Your task to perform on an android device: move an email to a new category in the gmail app Image 0: 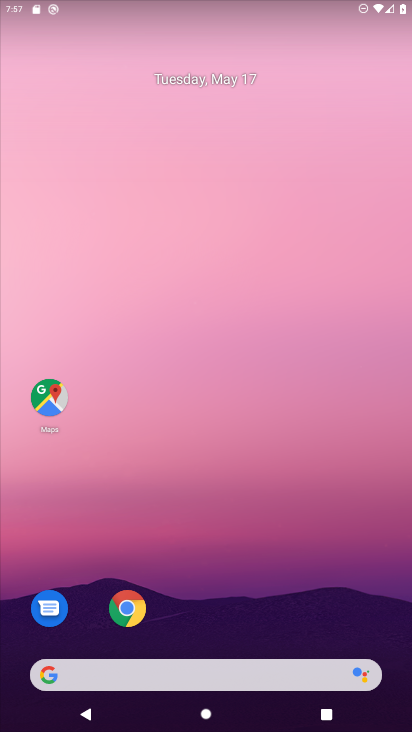
Step 0: drag from (204, 619) to (265, 190)
Your task to perform on an android device: move an email to a new category in the gmail app Image 1: 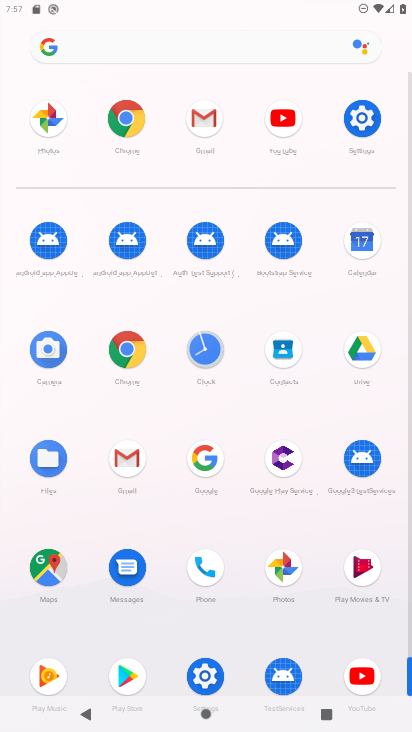
Step 1: click (136, 469)
Your task to perform on an android device: move an email to a new category in the gmail app Image 2: 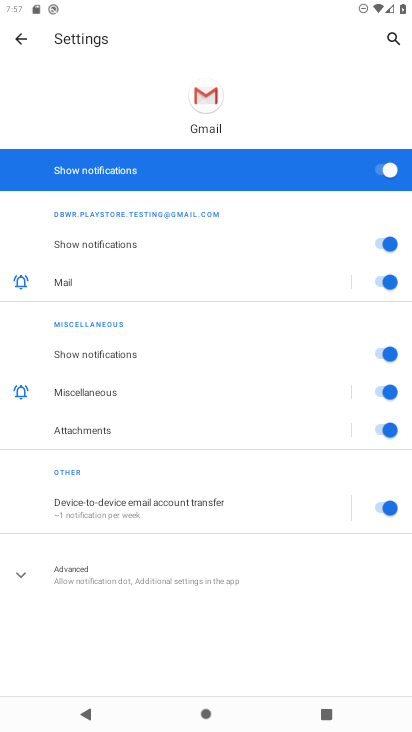
Step 2: click (21, 40)
Your task to perform on an android device: move an email to a new category in the gmail app Image 3: 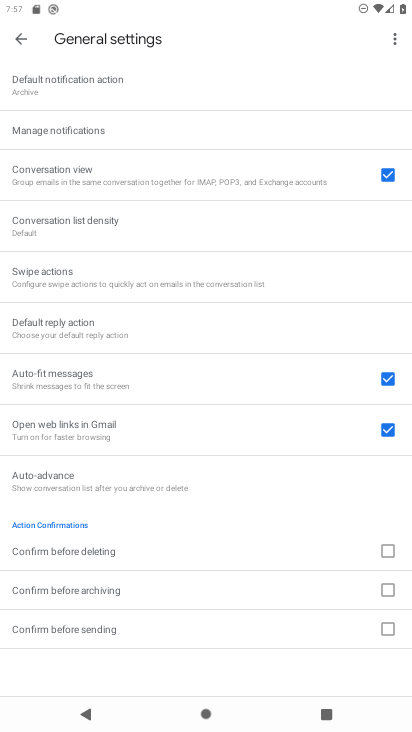
Step 3: click (20, 40)
Your task to perform on an android device: move an email to a new category in the gmail app Image 4: 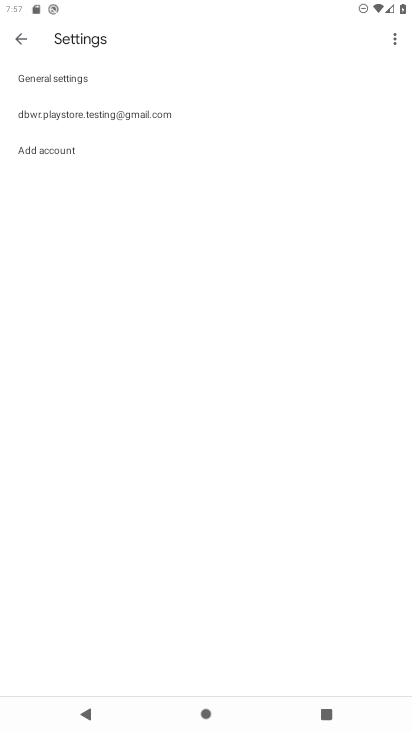
Step 4: click (24, 43)
Your task to perform on an android device: move an email to a new category in the gmail app Image 5: 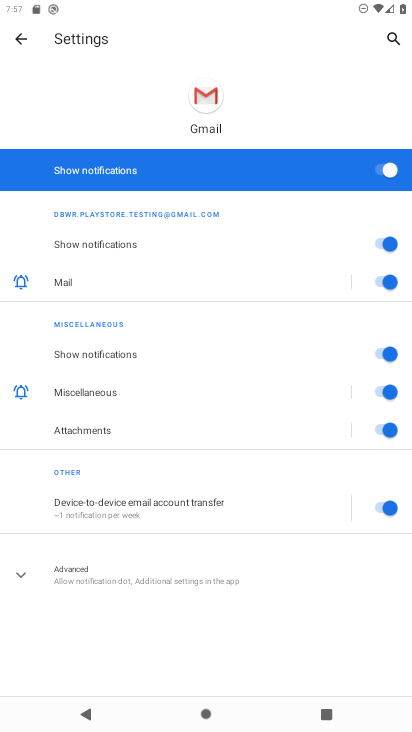
Step 5: click (21, 33)
Your task to perform on an android device: move an email to a new category in the gmail app Image 6: 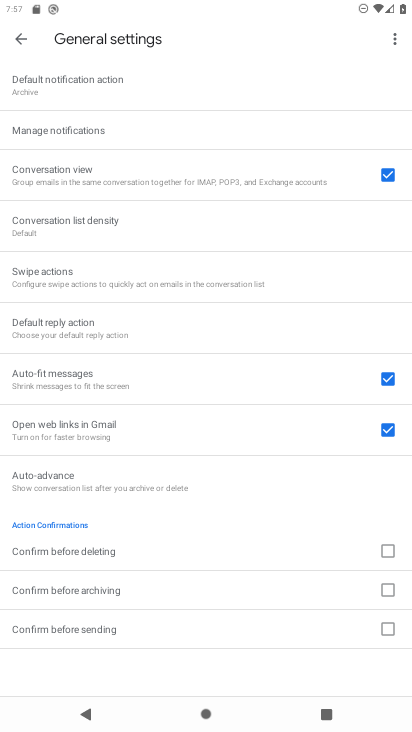
Step 6: click (19, 31)
Your task to perform on an android device: move an email to a new category in the gmail app Image 7: 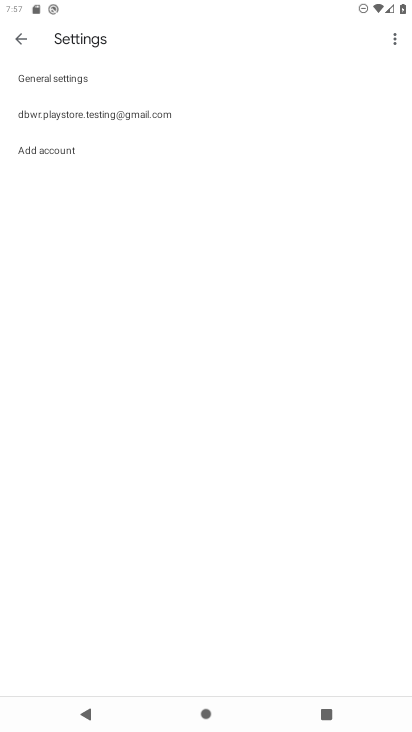
Step 7: click (19, 31)
Your task to perform on an android device: move an email to a new category in the gmail app Image 8: 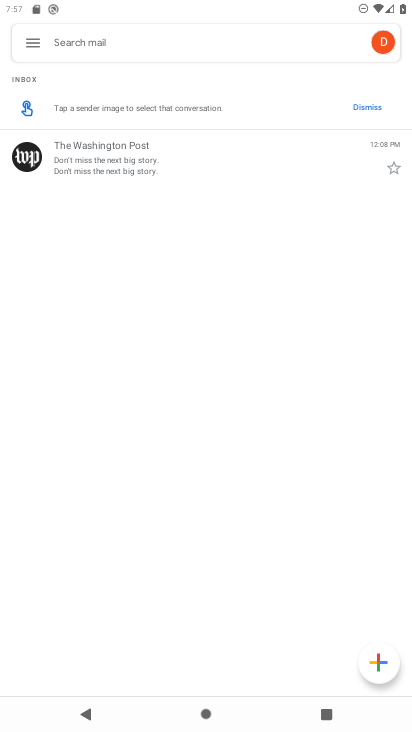
Step 8: click (37, 160)
Your task to perform on an android device: move an email to a new category in the gmail app Image 9: 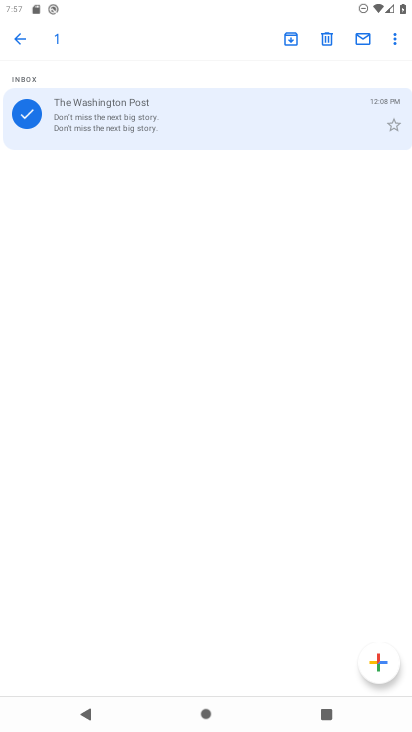
Step 9: click (389, 40)
Your task to perform on an android device: move an email to a new category in the gmail app Image 10: 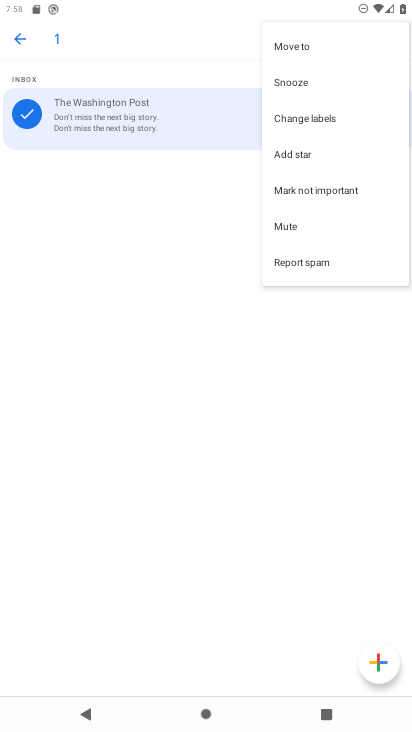
Step 10: click (308, 48)
Your task to perform on an android device: move an email to a new category in the gmail app Image 11: 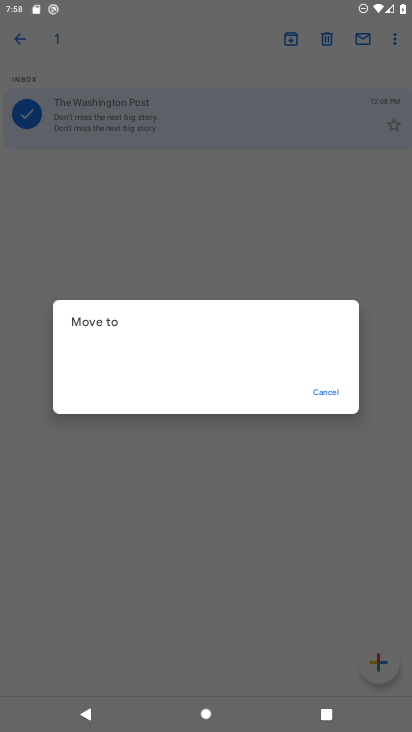
Step 11: click (250, 359)
Your task to perform on an android device: move an email to a new category in the gmail app Image 12: 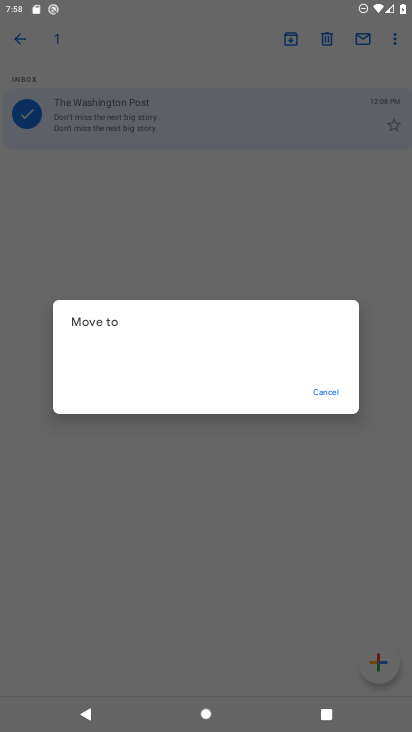
Step 12: click (338, 393)
Your task to perform on an android device: move an email to a new category in the gmail app Image 13: 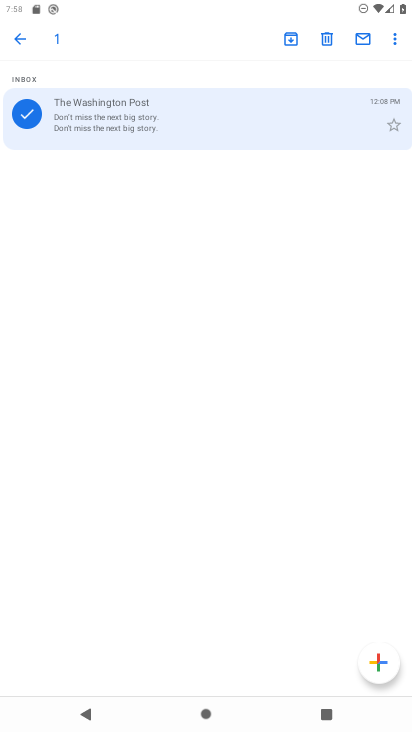
Step 13: click (254, 132)
Your task to perform on an android device: move an email to a new category in the gmail app Image 14: 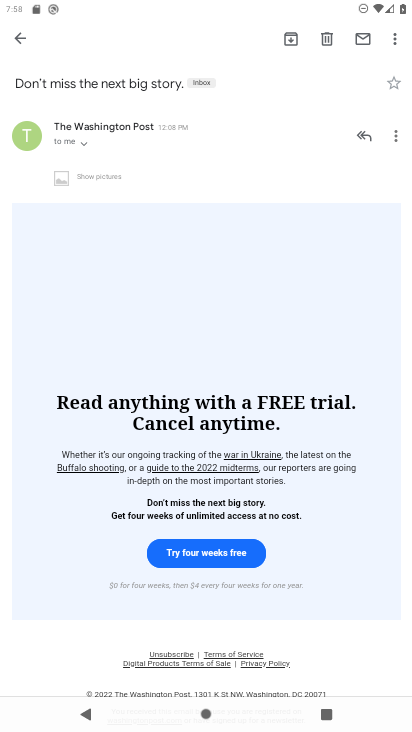
Step 14: click (390, 80)
Your task to perform on an android device: move an email to a new category in the gmail app Image 15: 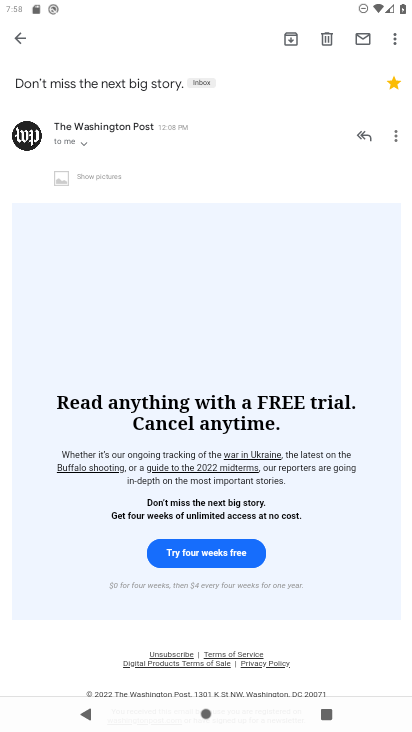
Step 15: task complete